Your task to perform on an android device: Open Maps and search for coffee Image 0: 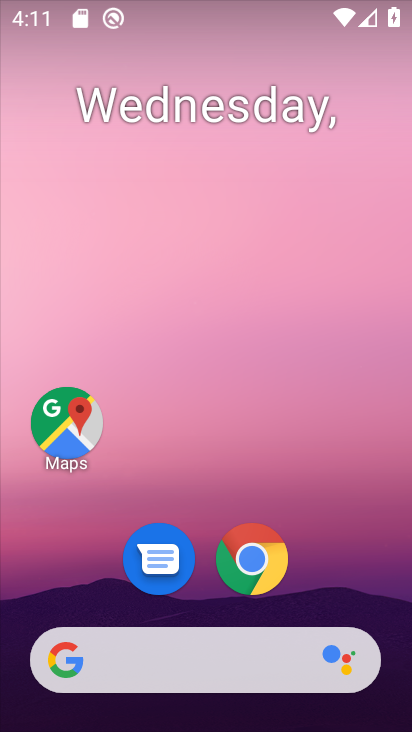
Step 0: click (81, 425)
Your task to perform on an android device: Open Maps and search for coffee Image 1: 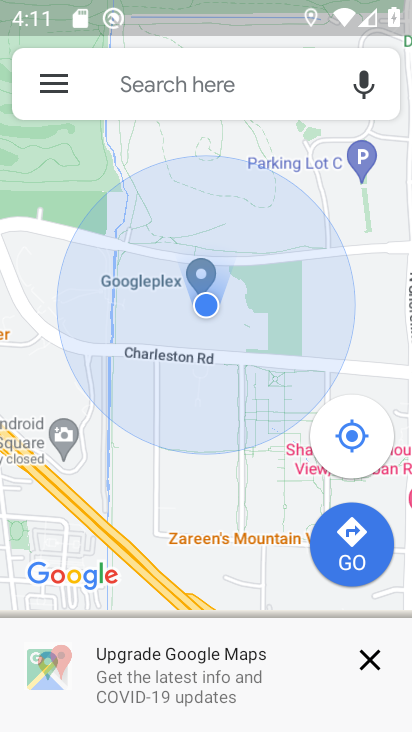
Step 1: click (197, 92)
Your task to perform on an android device: Open Maps and search for coffee Image 2: 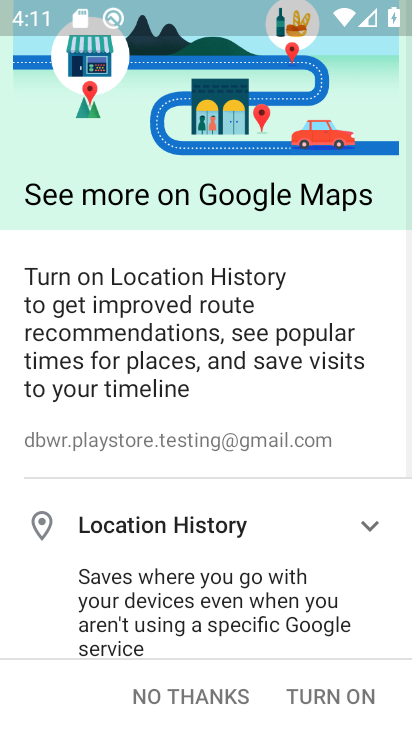
Step 2: click (188, 689)
Your task to perform on an android device: Open Maps and search for coffee Image 3: 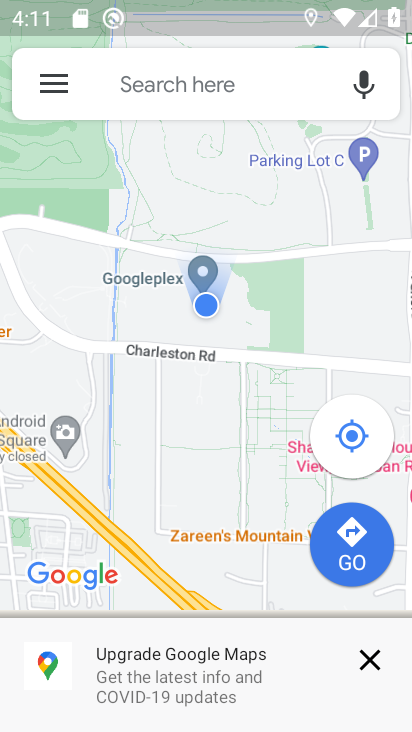
Step 3: click (190, 94)
Your task to perform on an android device: Open Maps and search for coffee Image 4: 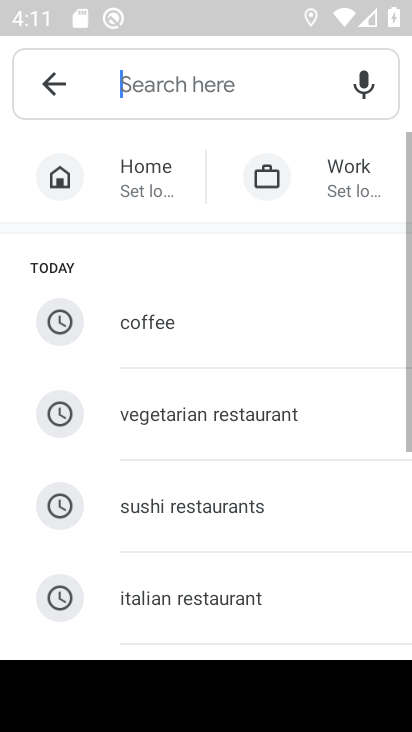
Step 4: click (220, 319)
Your task to perform on an android device: Open Maps and search for coffee Image 5: 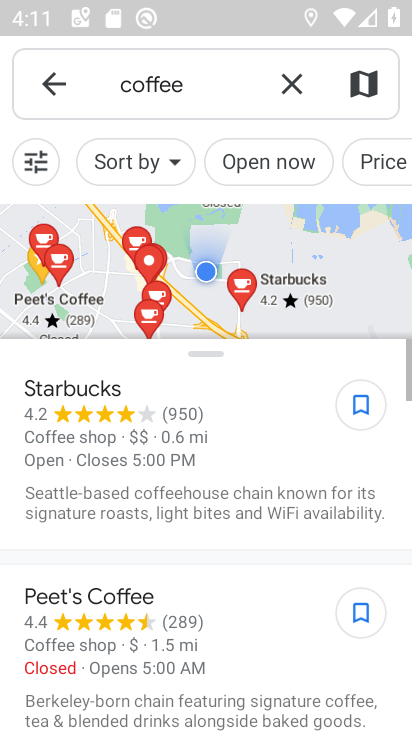
Step 5: task complete